Your task to perform on an android device: change the clock display to show seconds Image 0: 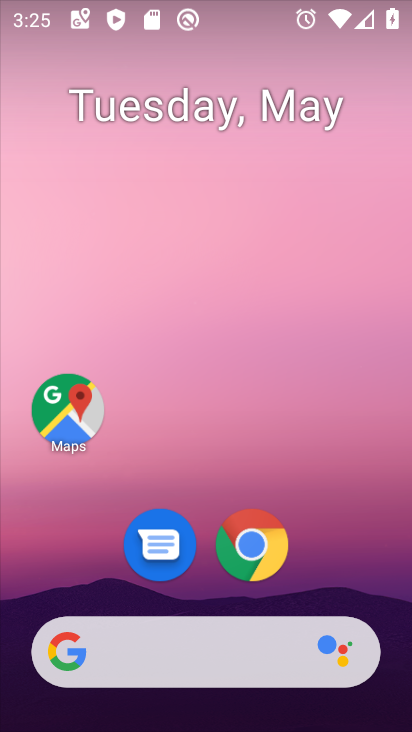
Step 0: drag from (233, 643) to (263, 119)
Your task to perform on an android device: change the clock display to show seconds Image 1: 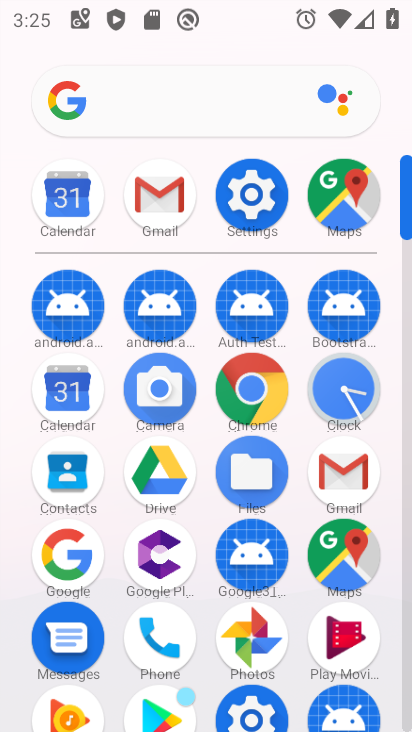
Step 1: click (358, 388)
Your task to perform on an android device: change the clock display to show seconds Image 2: 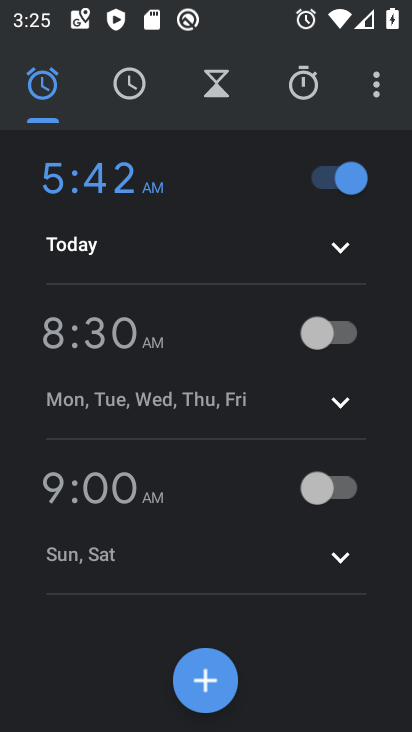
Step 2: click (372, 86)
Your task to perform on an android device: change the clock display to show seconds Image 3: 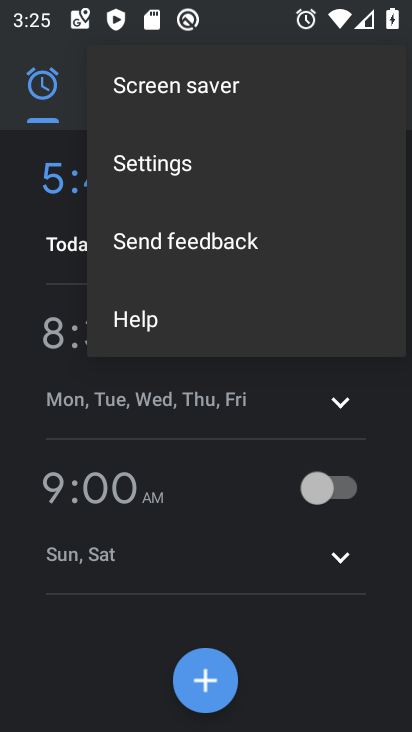
Step 3: click (202, 163)
Your task to perform on an android device: change the clock display to show seconds Image 4: 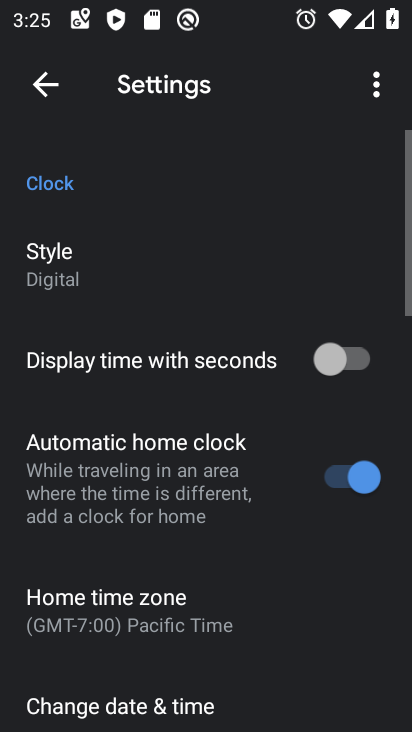
Step 4: click (359, 354)
Your task to perform on an android device: change the clock display to show seconds Image 5: 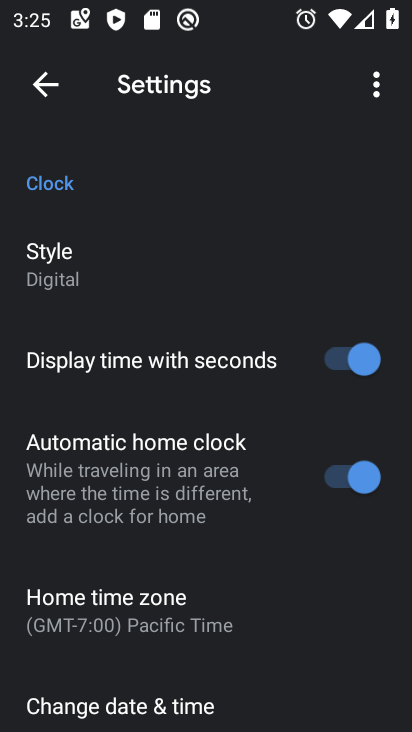
Step 5: task complete